Your task to perform on an android device: change the clock display to show seconds Image 0: 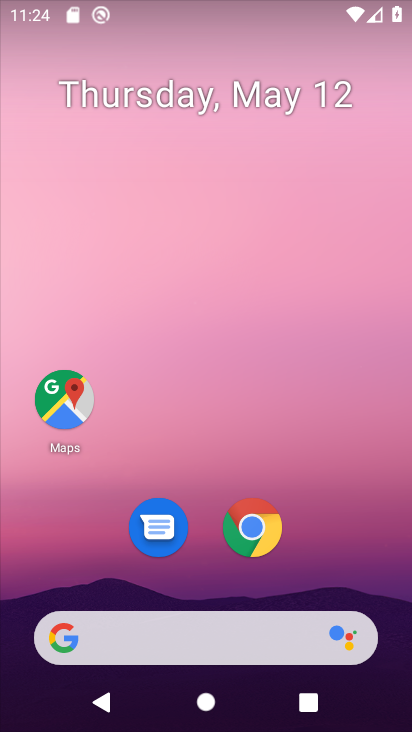
Step 0: drag from (356, 572) to (259, 118)
Your task to perform on an android device: change the clock display to show seconds Image 1: 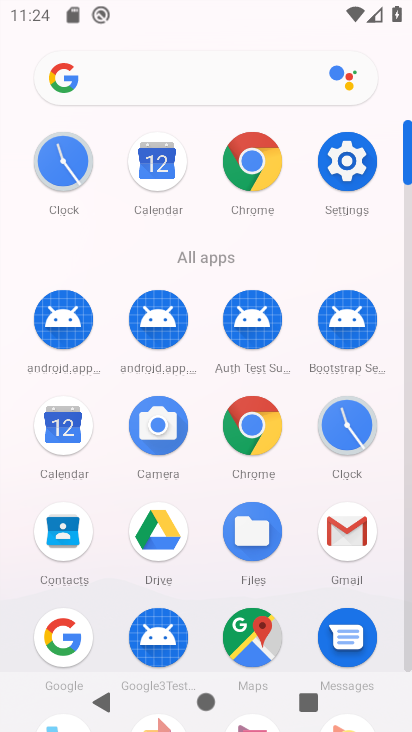
Step 1: click (331, 432)
Your task to perform on an android device: change the clock display to show seconds Image 2: 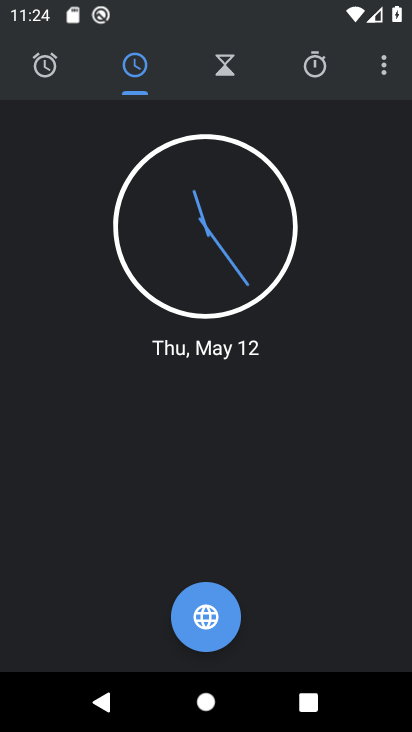
Step 2: click (380, 65)
Your task to perform on an android device: change the clock display to show seconds Image 3: 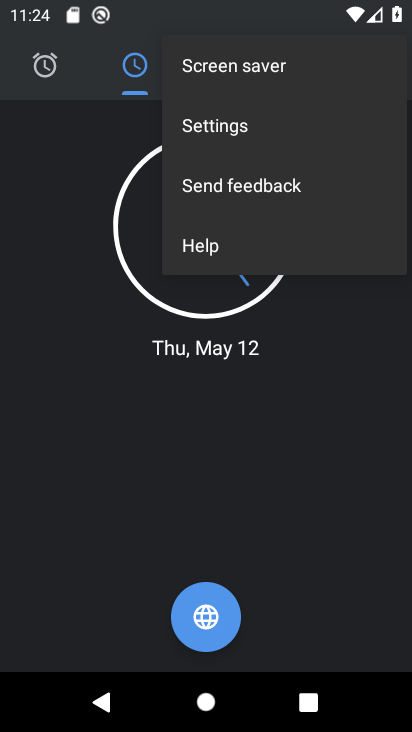
Step 3: click (282, 137)
Your task to perform on an android device: change the clock display to show seconds Image 4: 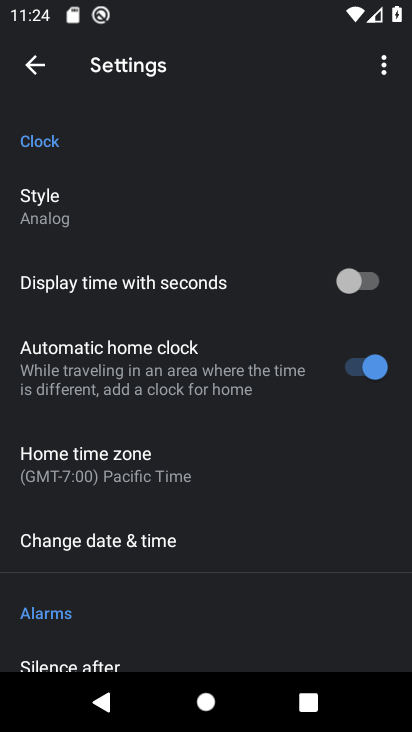
Step 4: click (384, 291)
Your task to perform on an android device: change the clock display to show seconds Image 5: 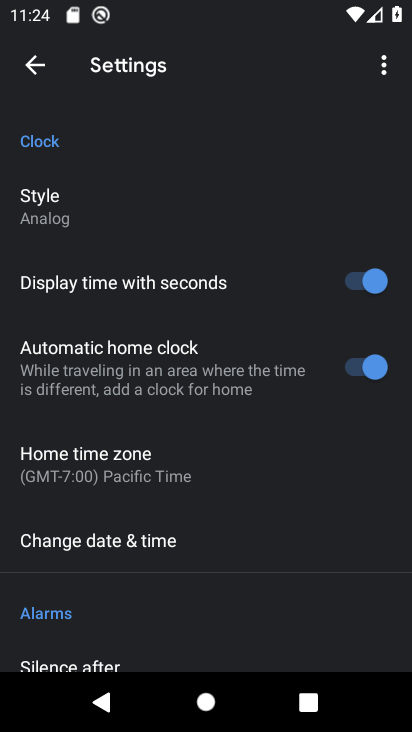
Step 5: task complete